Your task to perform on an android device: change timer sound Image 0: 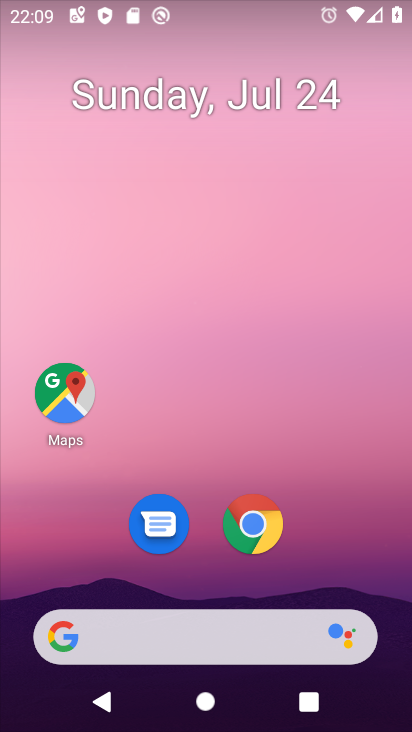
Step 0: drag from (240, 645) to (390, 24)
Your task to perform on an android device: change timer sound Image 1: 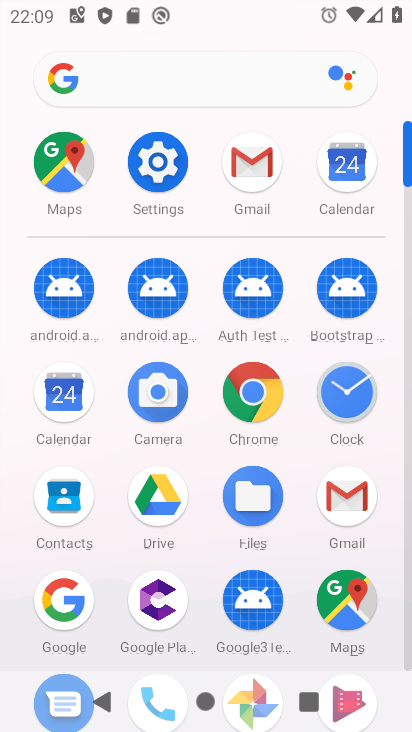
Step 1: click (349, 404)
Your task to perform on an android device: change timer sound Image 2: 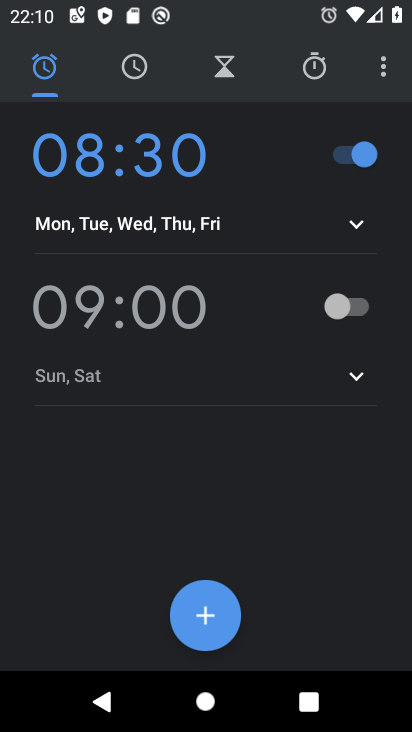
Step 2: click (383, 65)
Your task to perform on an android device: change timer sound Image 3: 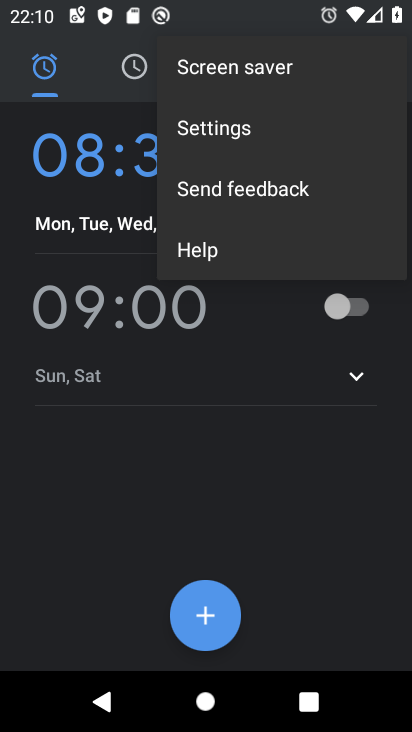
Step 3: click (214, 132)
Your task to perform on an android device: change timer sound Image 4: 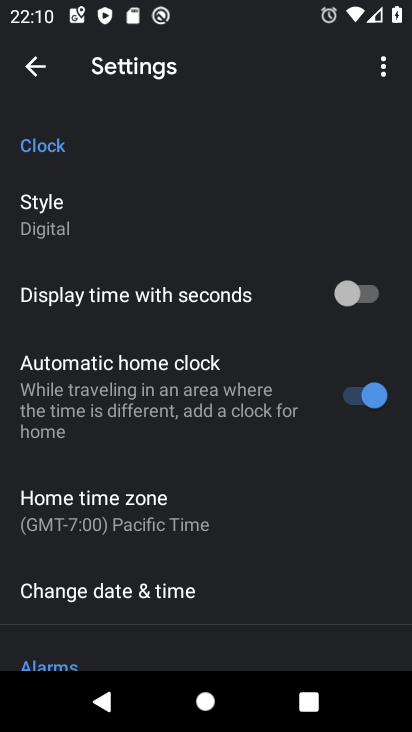
Step 4: drag from (279, 593) to (398, 19)
Your task to perform on an android device: change timer sound Image 5: 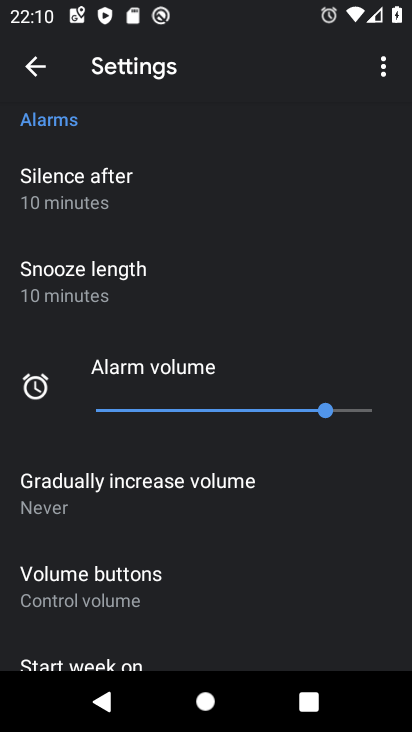
Step 5: drag from (226, 566) to (347, 85)
Your task to perform on an android device: change timer sound Image 6: 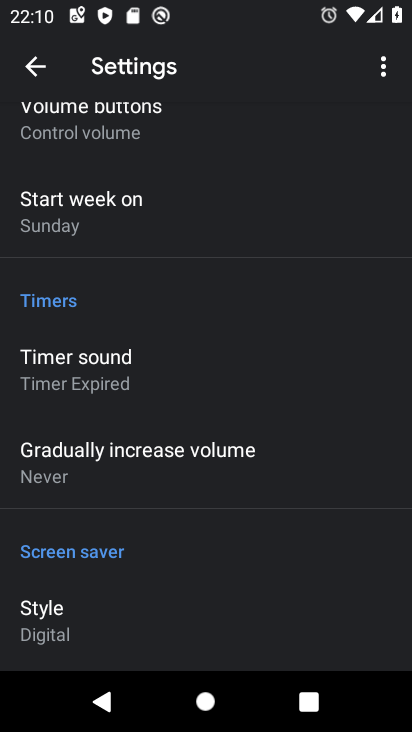
Step 6: click (71, 372)
Your task to perform on an android device: change timer sound Image 7: 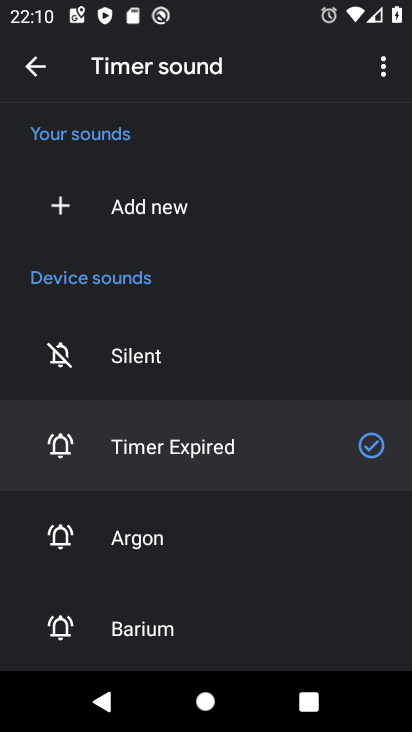
Step 7: click (161, 550)
Your task to perform on an android device: change timer sound Image 8: 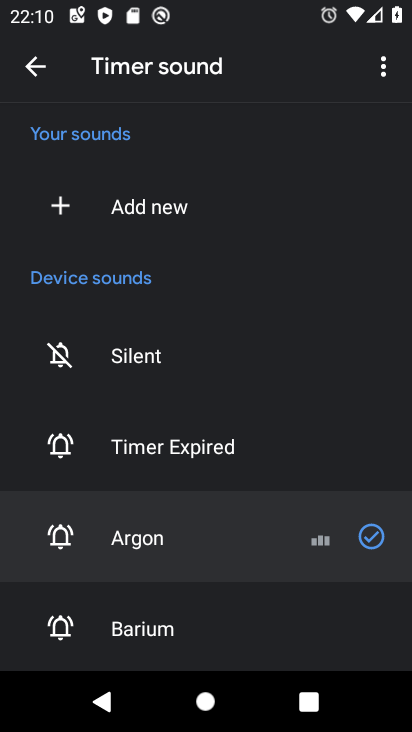
Step 8: task complete